Your task to perform on an android device: install app "Facebook" Image 0: 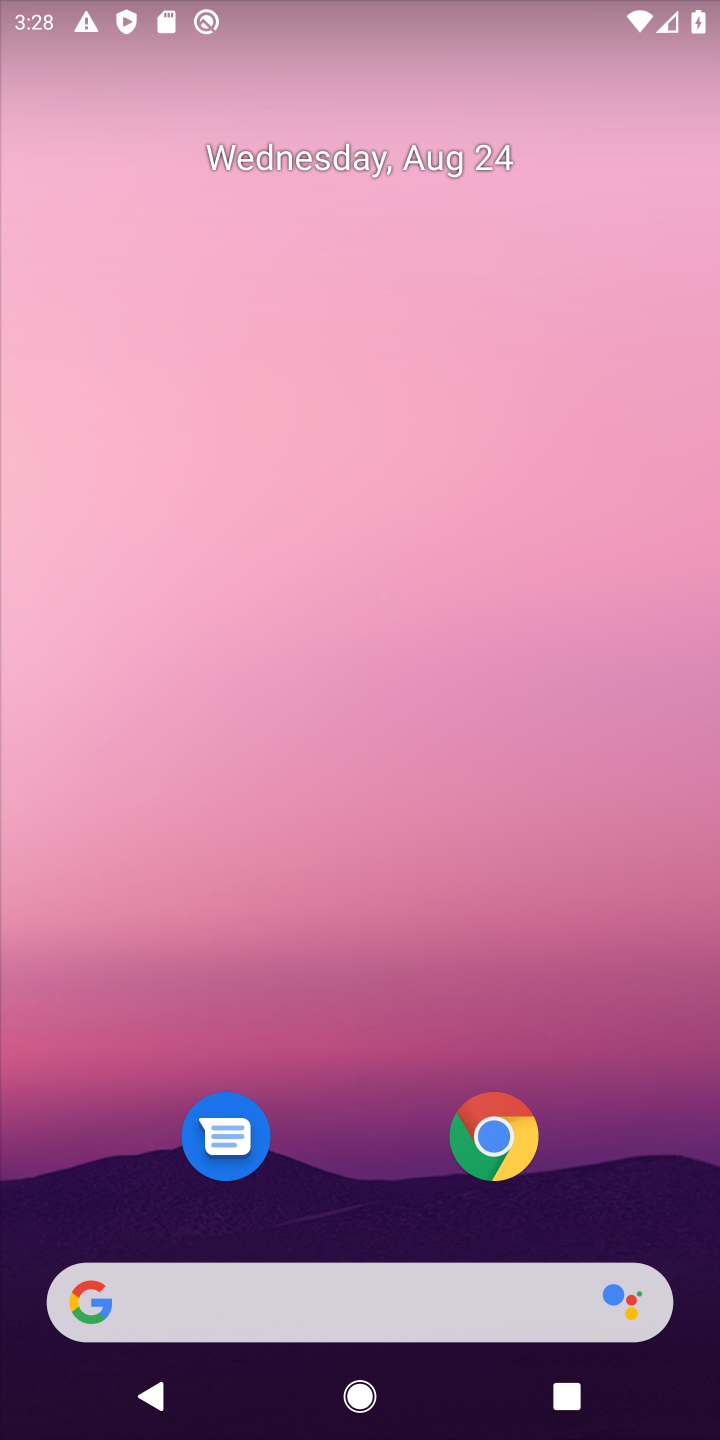
Step 0: drag from (314, 1066) to (289, 130)
Your task to perform on an android device: install app "Facebook" Image 1: 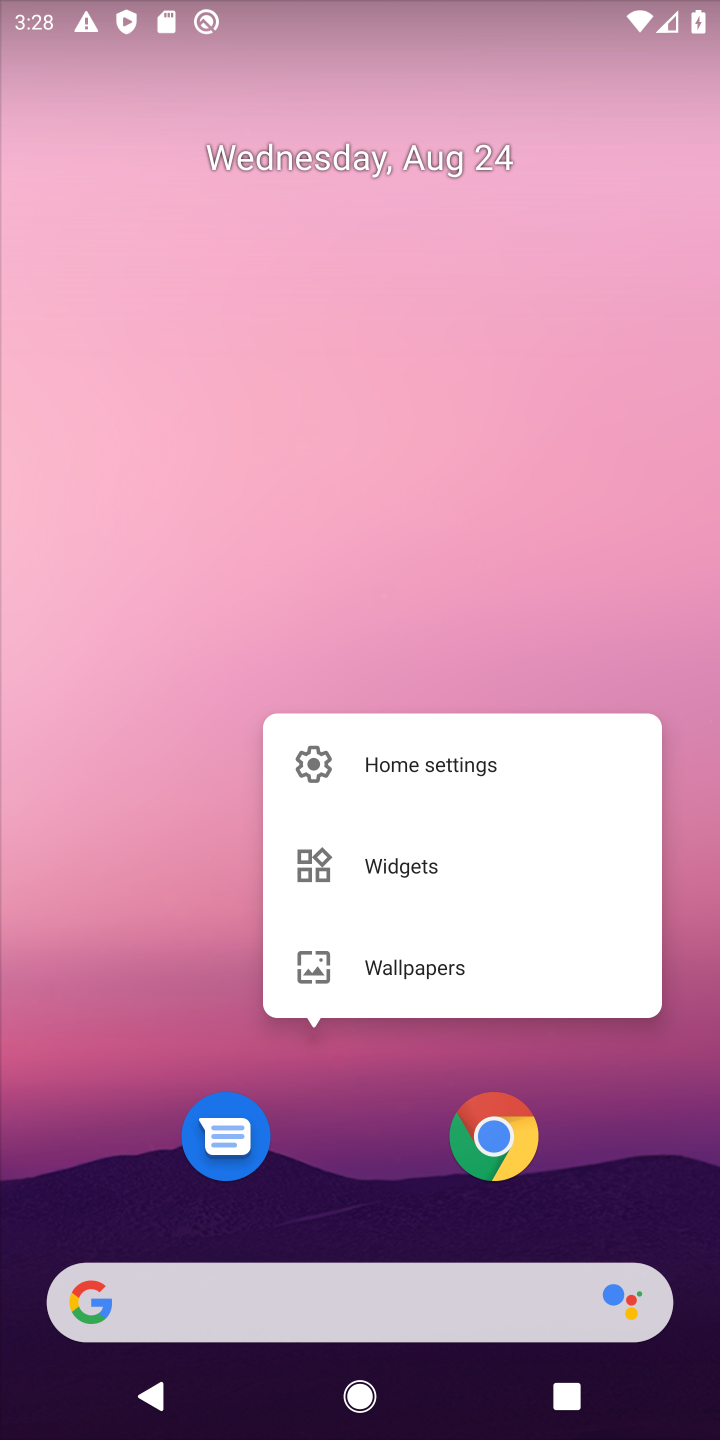
Step 1: click (308, 1205)
Your task to perform on an android device: install app "Facebook" Image 2: 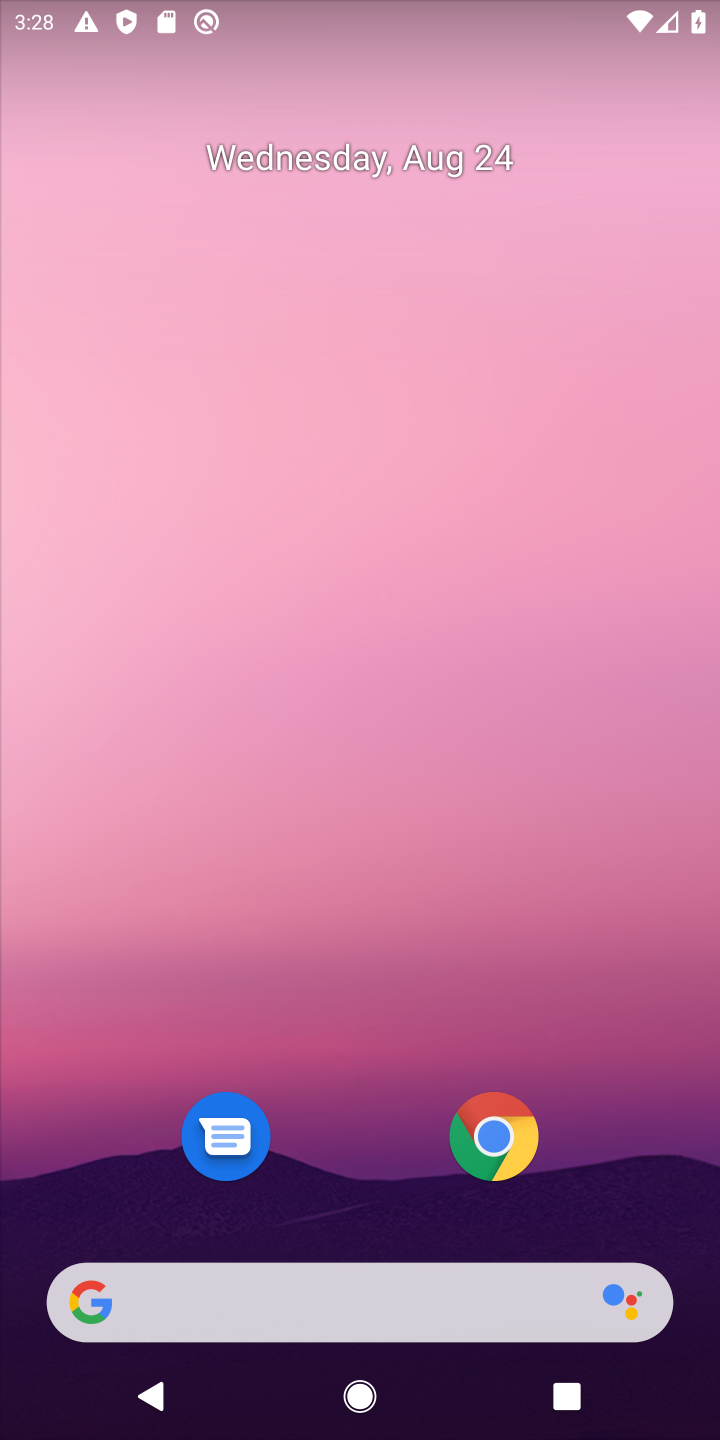
Step 2: drag from (308, 1205) to (402, 206)
Your task to perform on an android device: install app "Facebook" Image 3: 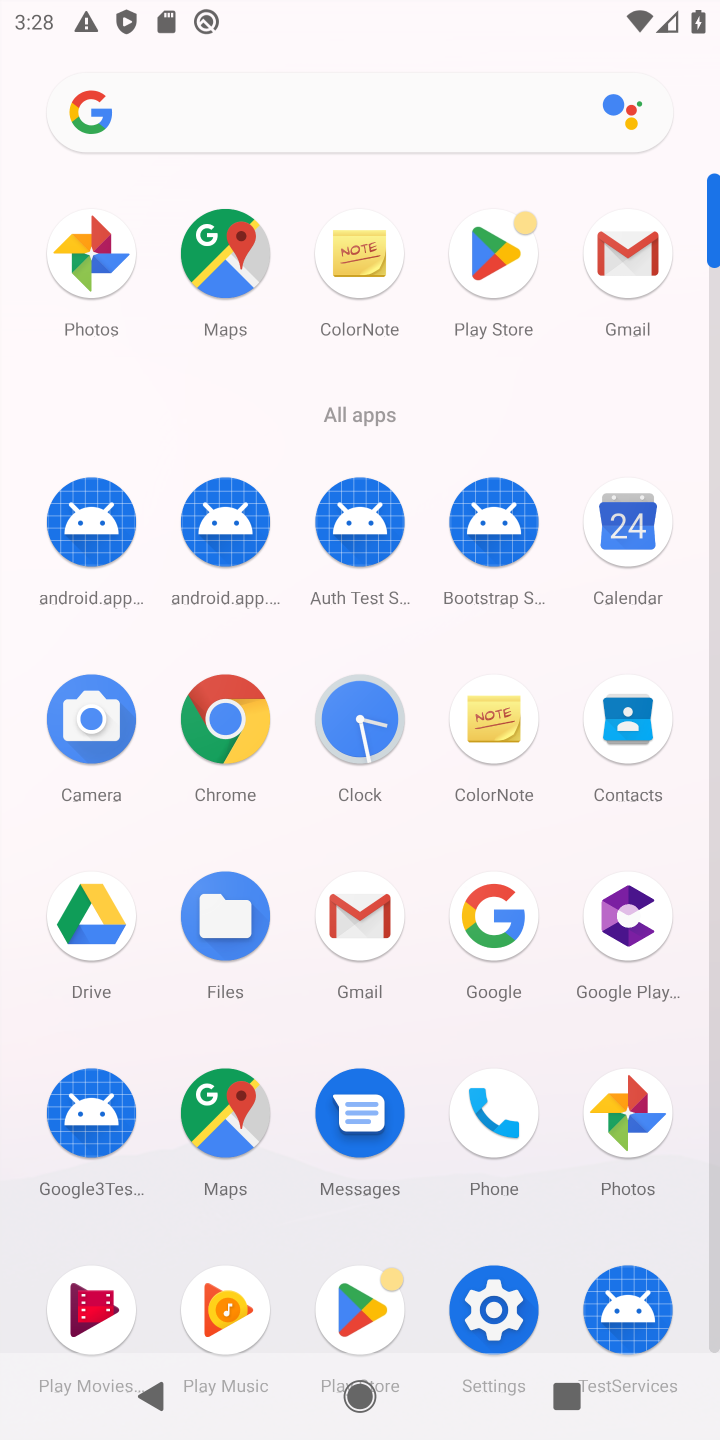
Step 3: click (480, 281)
Your task to perform on an android device: install app "Facebook" Image 4: 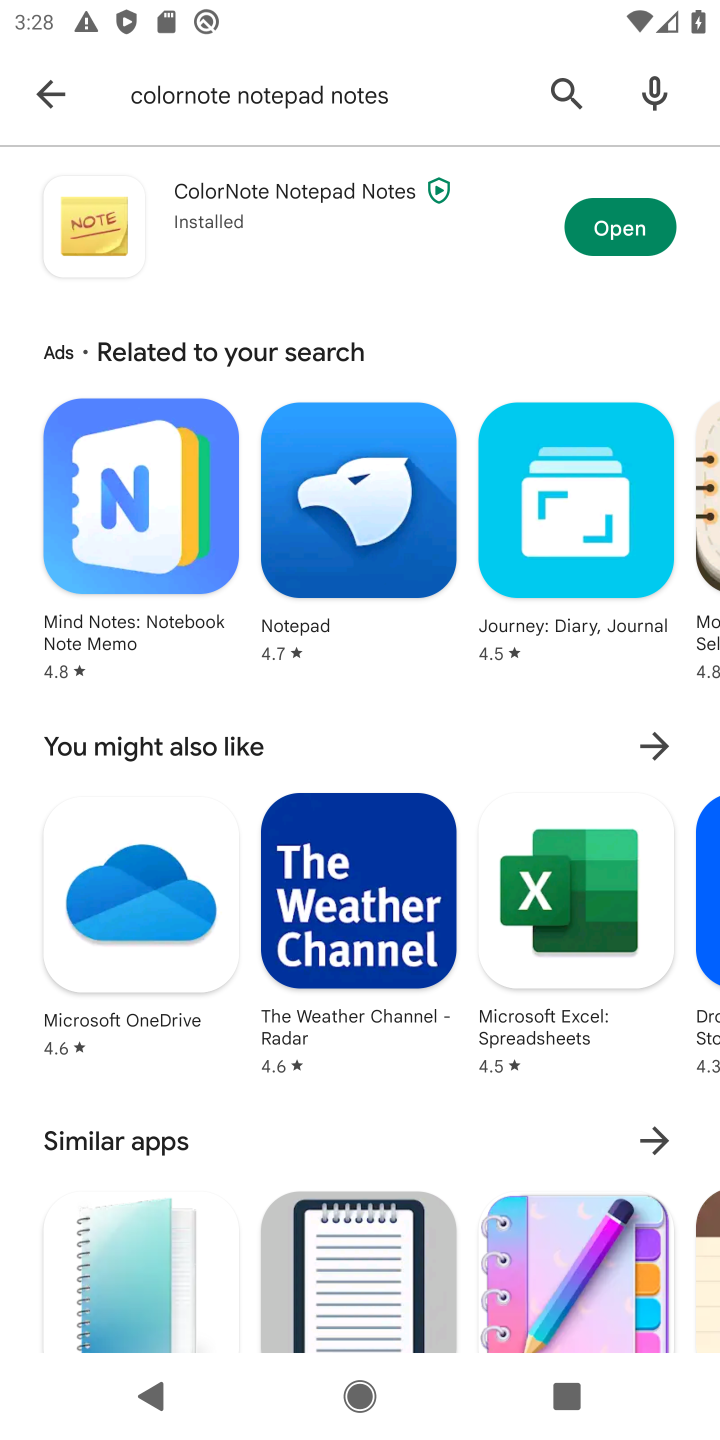
Step 4: click (41, 83)
Your task to perform on an android device: install app "Facebook" Image 5: 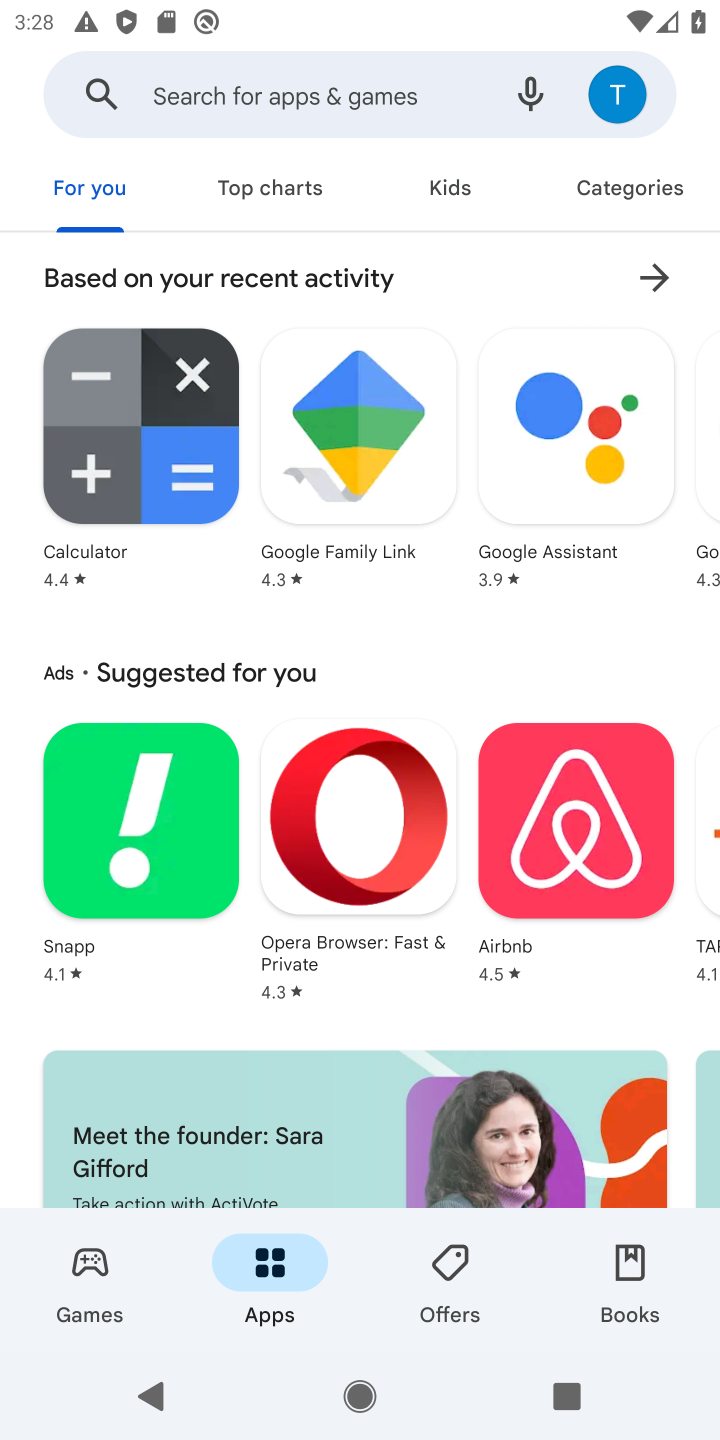
Step 5: click (288, 83)
Your task to perform on an android device: install app "Facebook" Image 6: 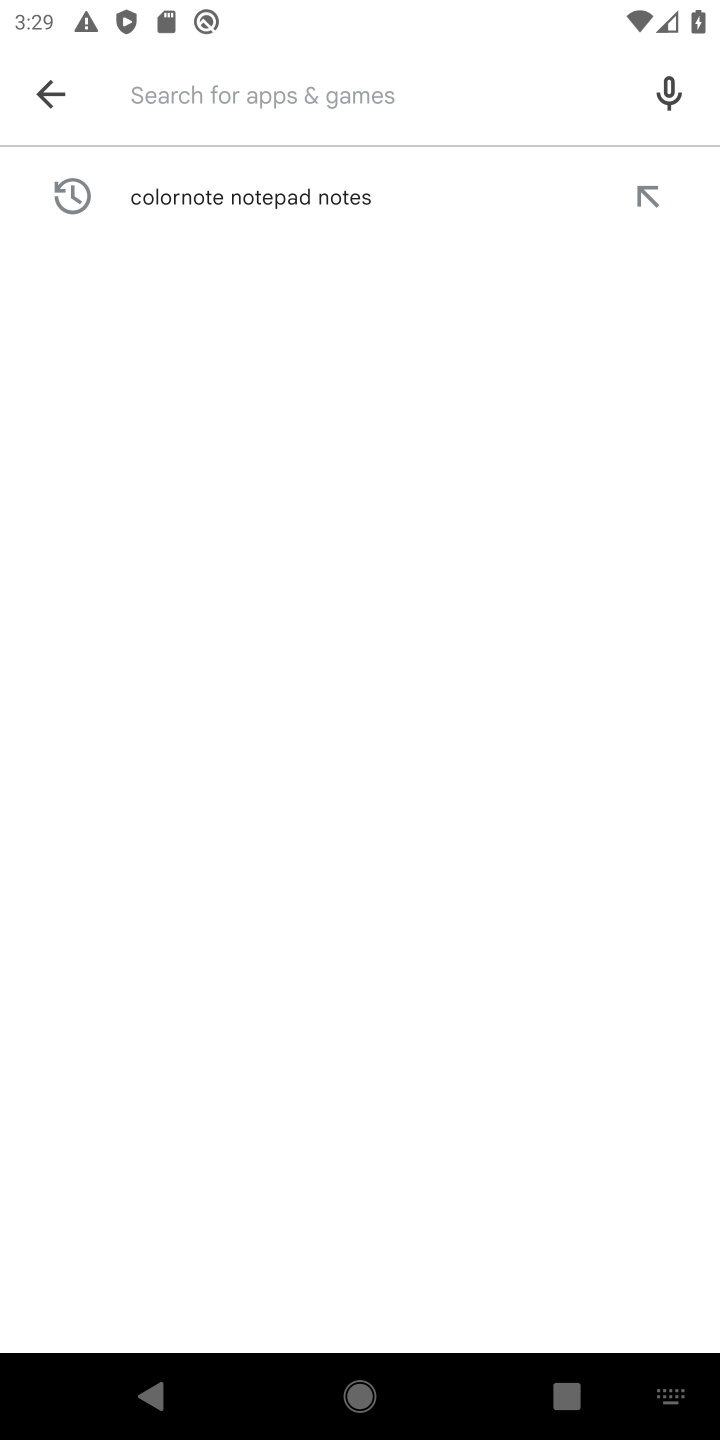
Step 6: type "Facebook"
Your task to perform on an android device: install app "Facebook" Image 7: 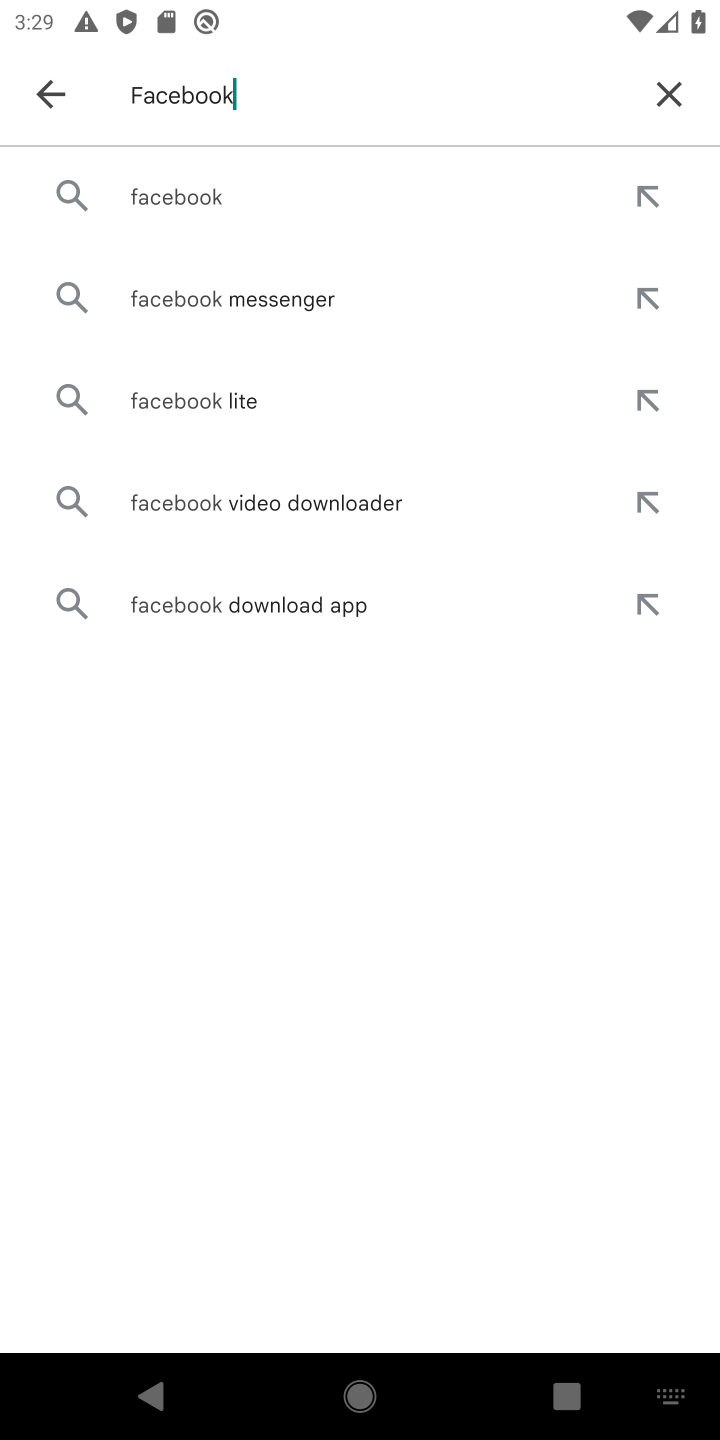
Step 7: click (165, 180)
Your task to perform on an android device: install app "Facebook" Image 8: 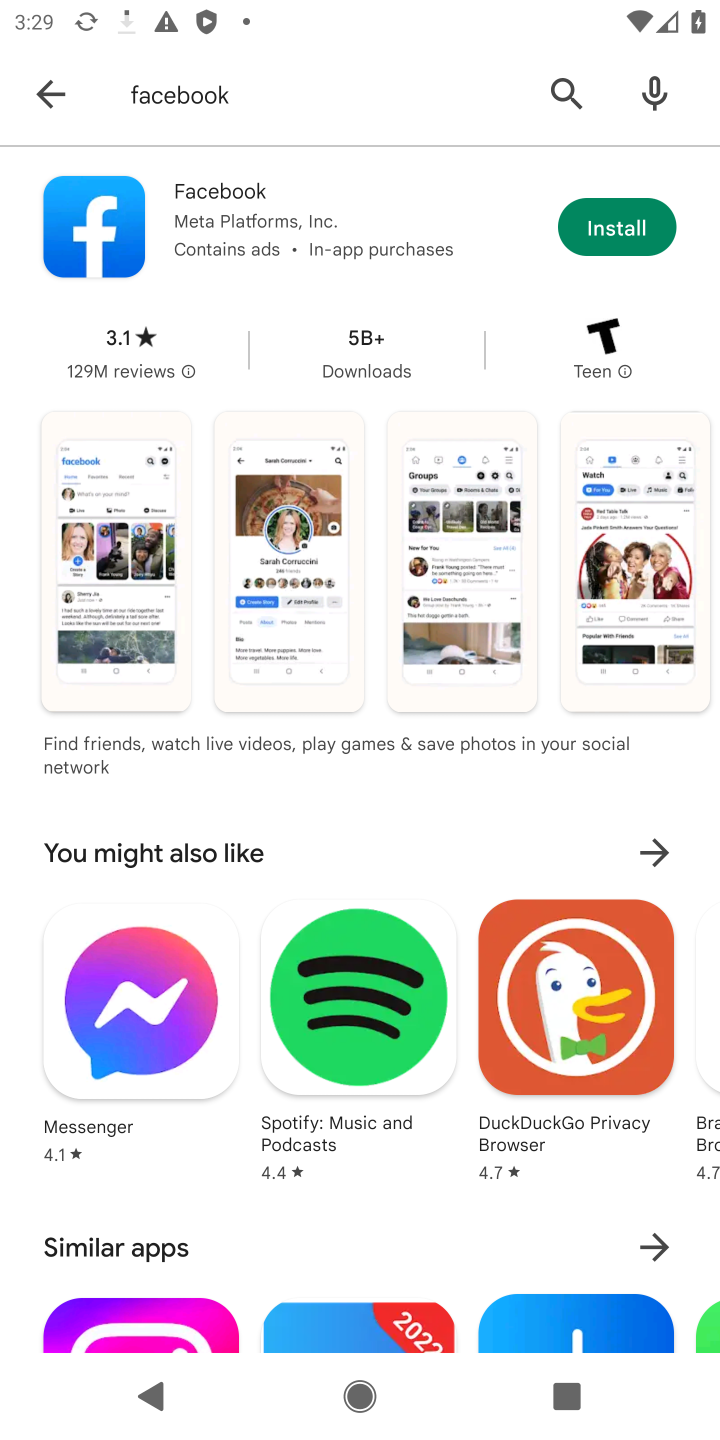
Step 8: click (647, 223)
Your task to perform on an android device: install app "Facebook" Image 9: 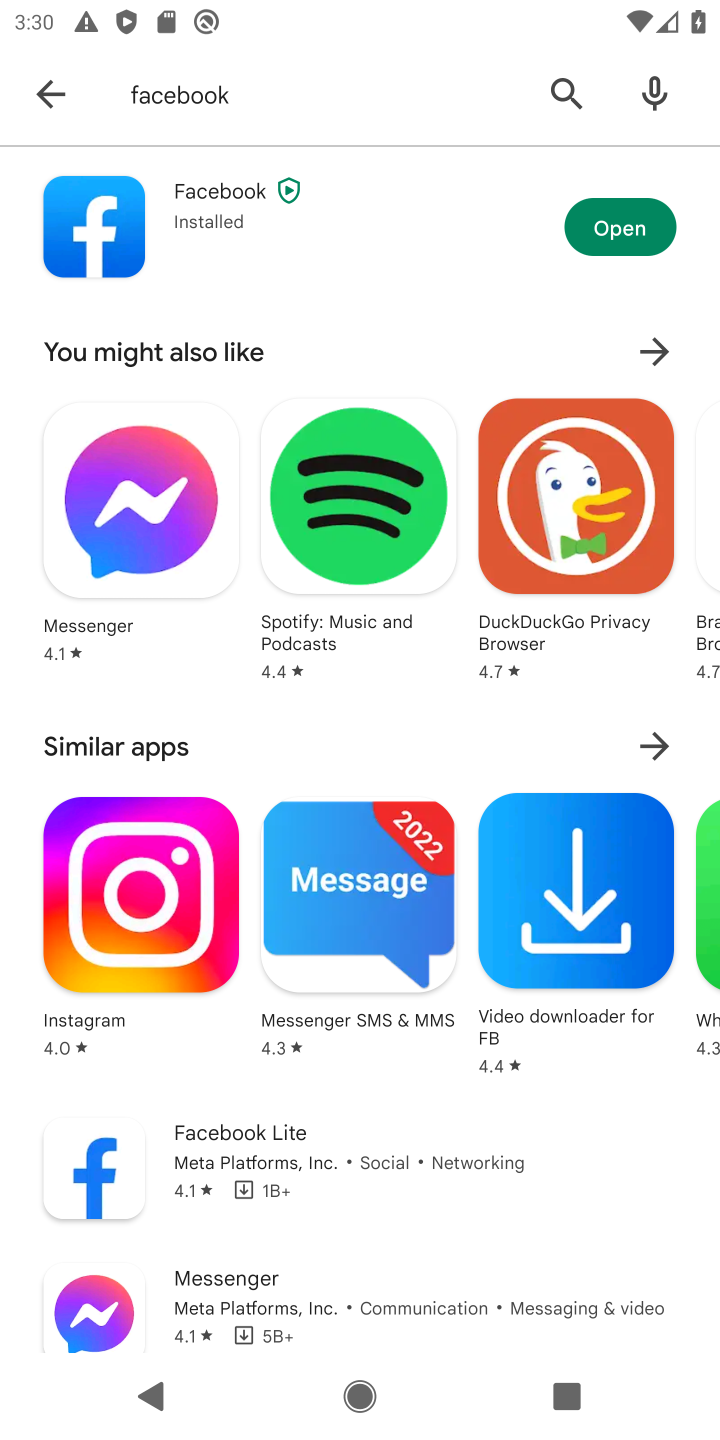
Step 9: click (616, 216)
Your task to perform on an android device: install app "Facebook" Image 10: 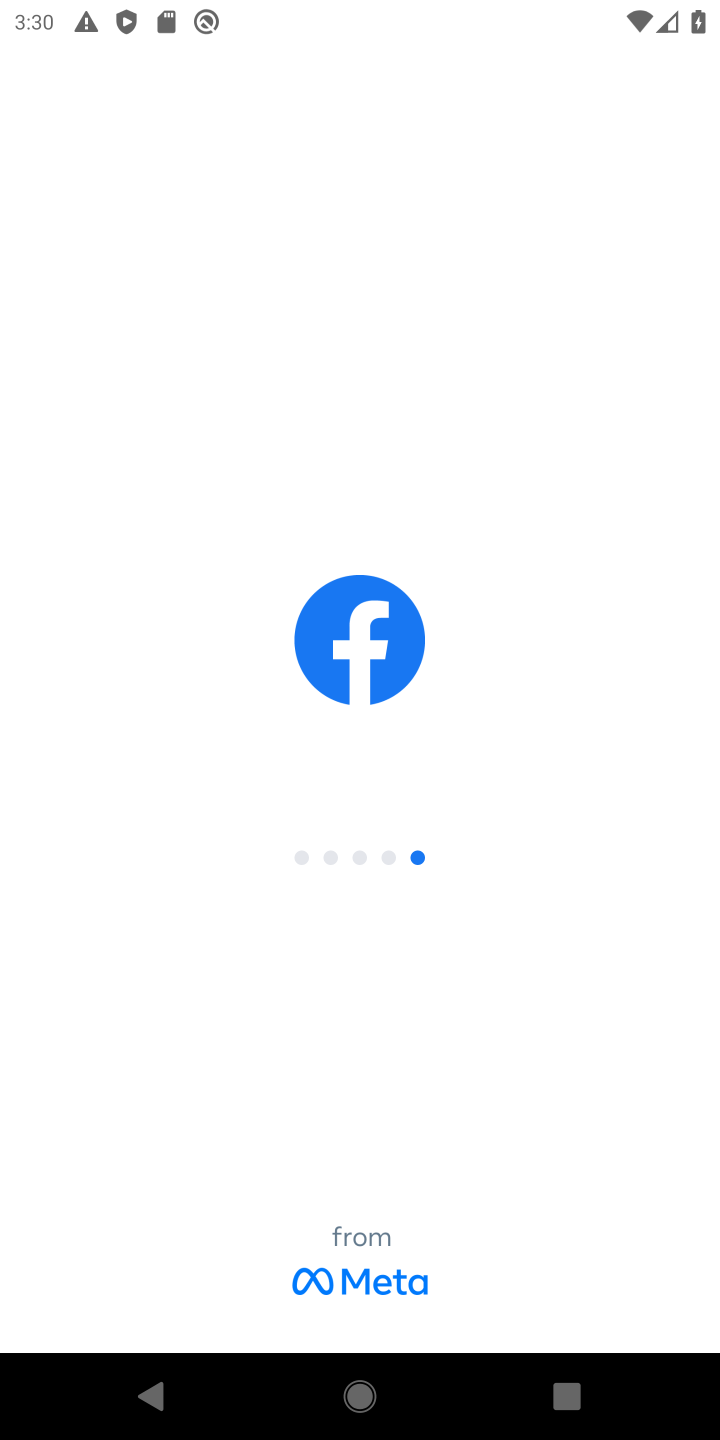
Step 10: task complete